Your task to perform on an android device: empty trash in google photos Image 0: 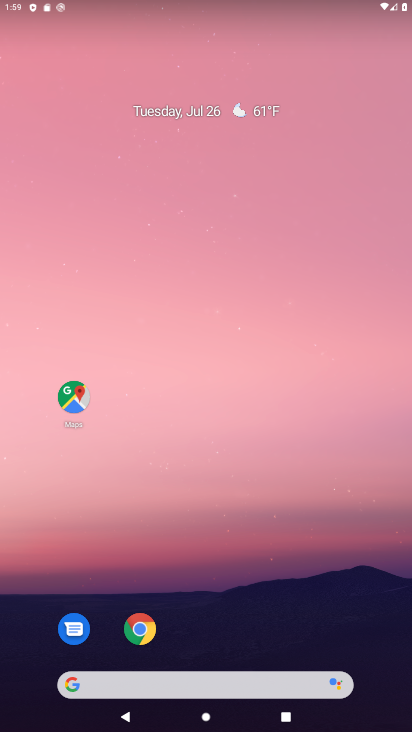
Step 0: drag from (243, 543) to (217, 10)
Your task to perform on an android device: empty trash in google photos Image 1: 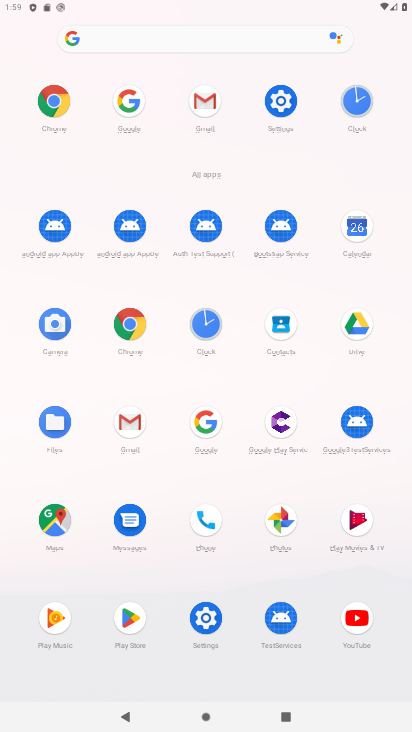
Step 1: click (277, 524)
Your task to perform on an android device: empty trash in google photos Image 2: 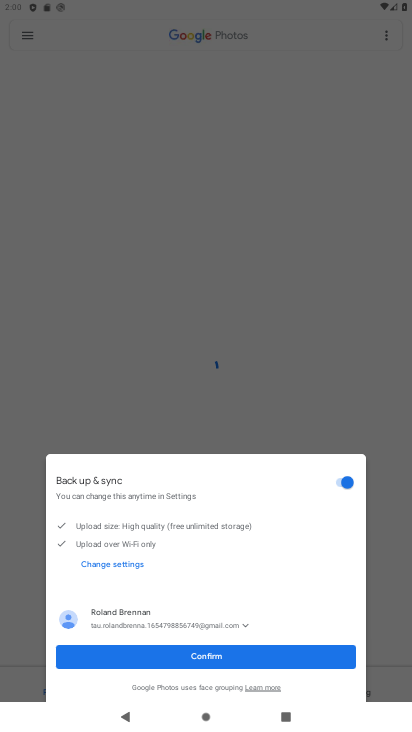
Step 2: click (194, 658)
Your task to perform on an android device: empty trash in google photos Image 3: 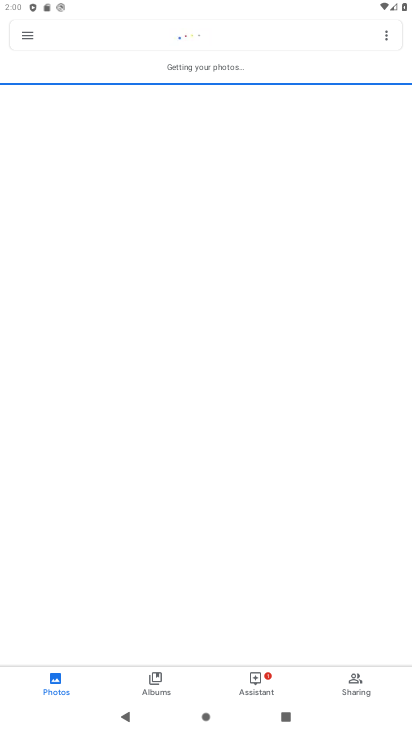
Step 3: click (31, 31)
Your task to perform on an android device: empty trash in google photos Image 4: 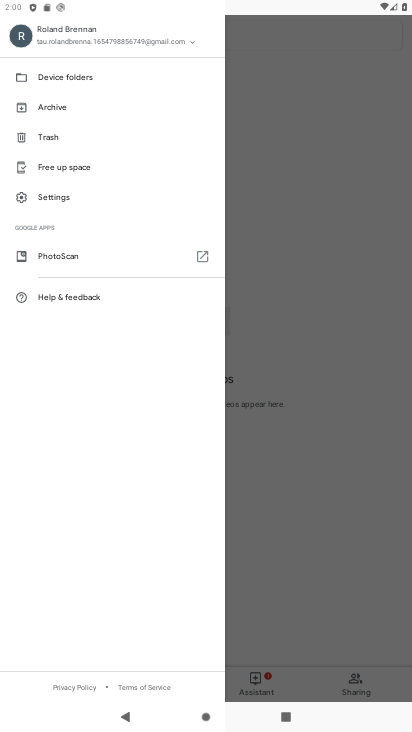
Step 4: click (41, 134)
Your task to perform on an android device: empty trash in google photos Image 5: 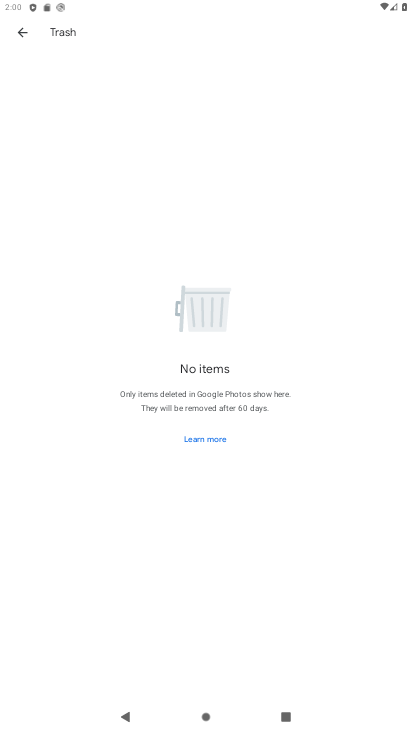
Step 5: task complete